Your task to perform on an android device: Go to Maps Image 0: 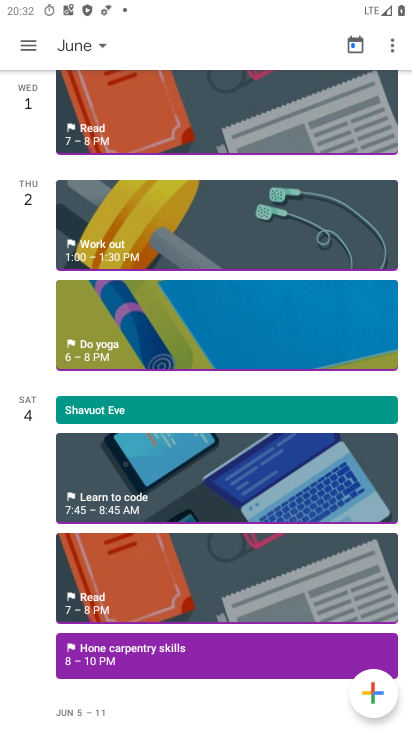
Step 0: press home button
Your task to perform on an android device: Go to Maps Image 1: 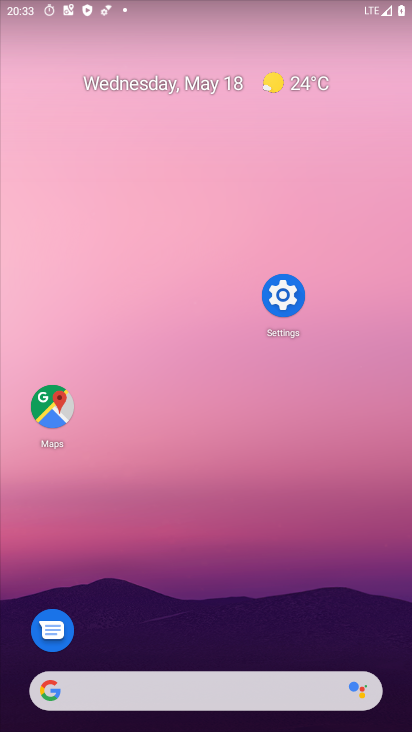
Step 1: click (42, 402)
Your task to perform on an android device: Go to Maps Image 2: 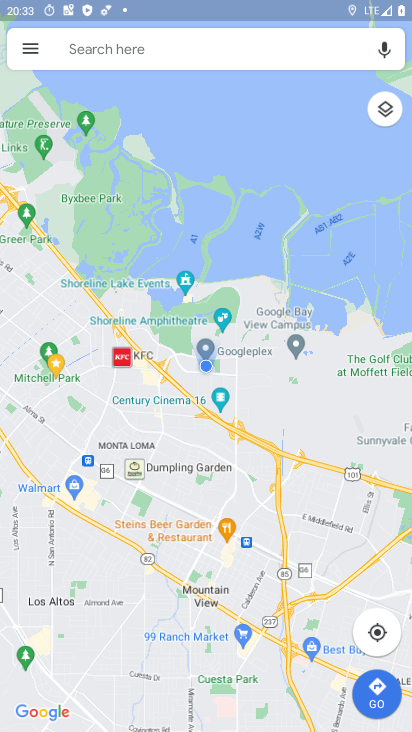
Step 2: task complete